Your task to perform on an android device: toggle pop-ups in chrome Image 0: 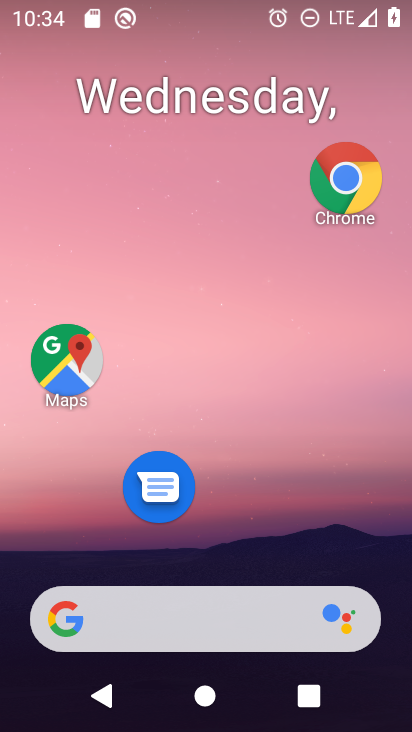
Step 0: drag from (183, 586) to (180, 237)
Your task to perform on an android device: toggle pop-ups in chrome Image 1: 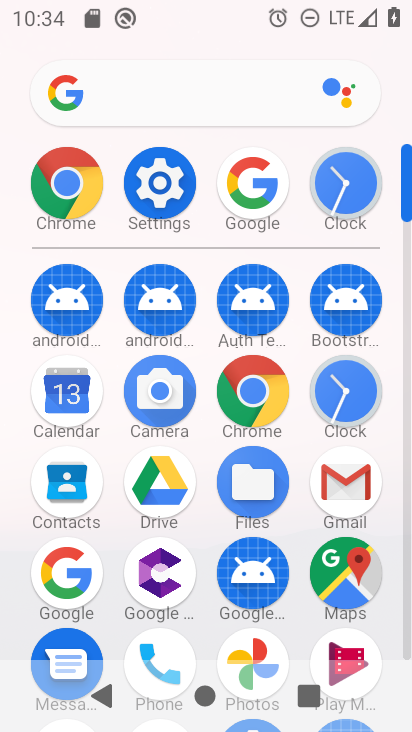
Step 1: click (263, 405)
Your task to perform on an android device: toggle pop-ups in chrome Image 2: 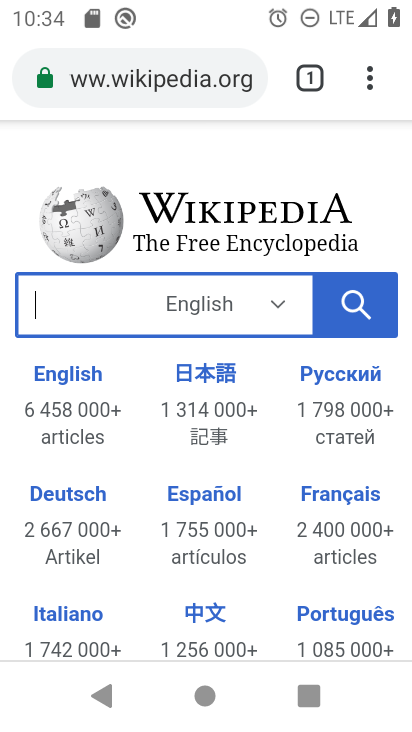
Step 2: click (373, 88)
Your task to perform on an android device: toggle pop-ups in chrome Image 3: 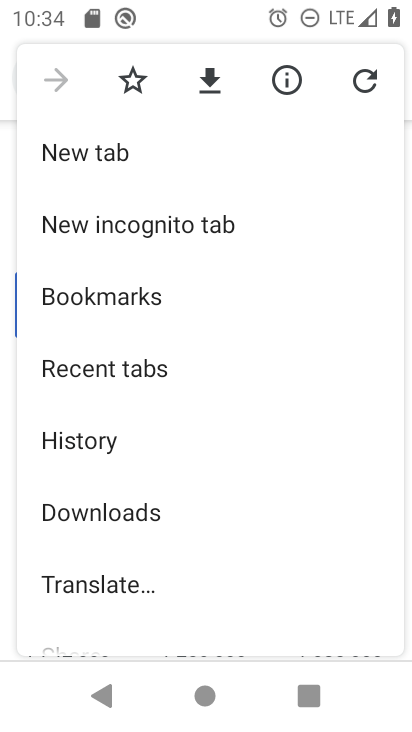
Step 3: drag from (168, 513) to (191, 281)
Your task to perform on an android device: toggle pop-ups in chrome Image 4: 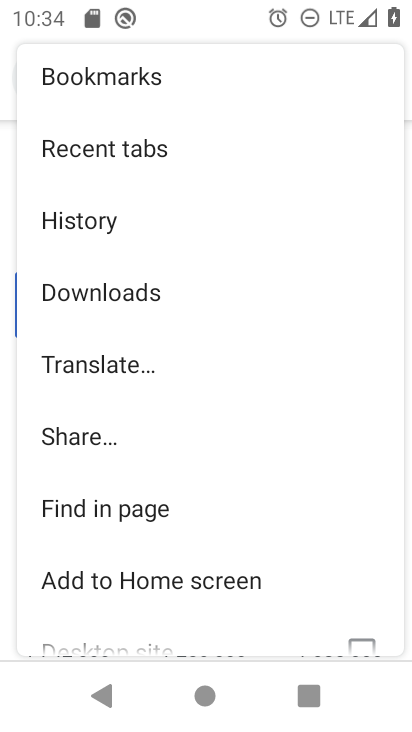
Step 4: drag from (112, 530) to (173, 162)
Your task to perform on an android device: toggle pop-ups in chrome Image 5: 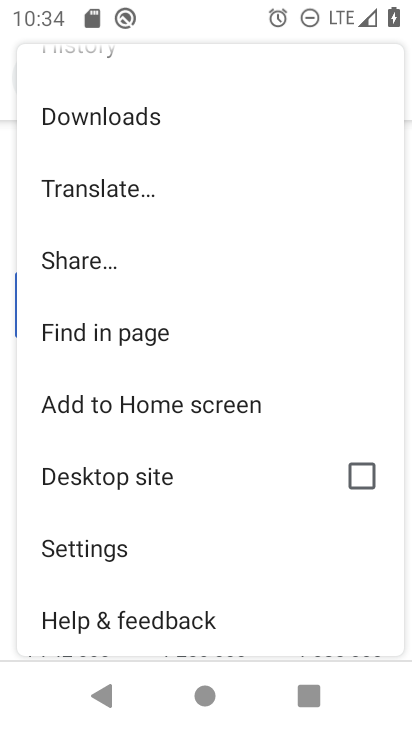
Step 5: click (76, 553)
Your task to perform on an android device: toggle pop-ups in chrome Image 6: 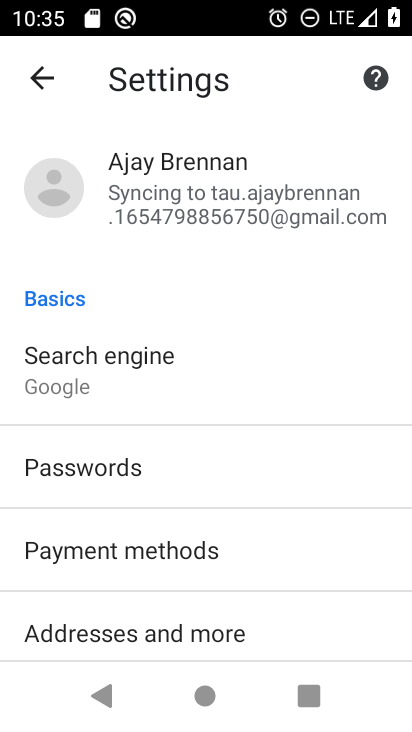
Step 6: drag from (115, 577) to (150, 98)
Your task to perform on an android device: toggle pop-ups in chrome Image 7: 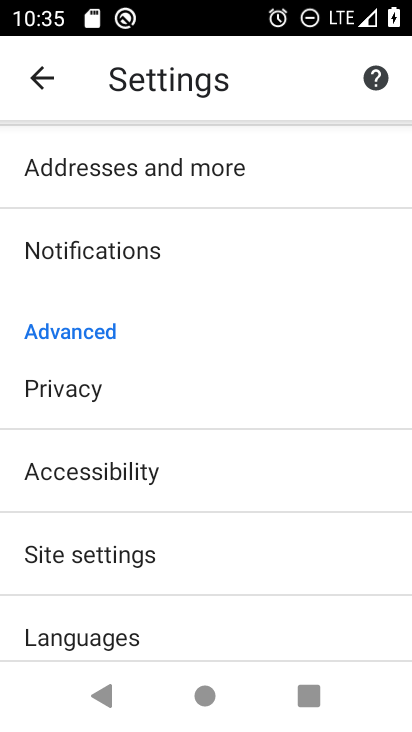
Step 7: click (126, 563)
Your task to perform on an android device: toggle pop-ups in chrome Image 8: 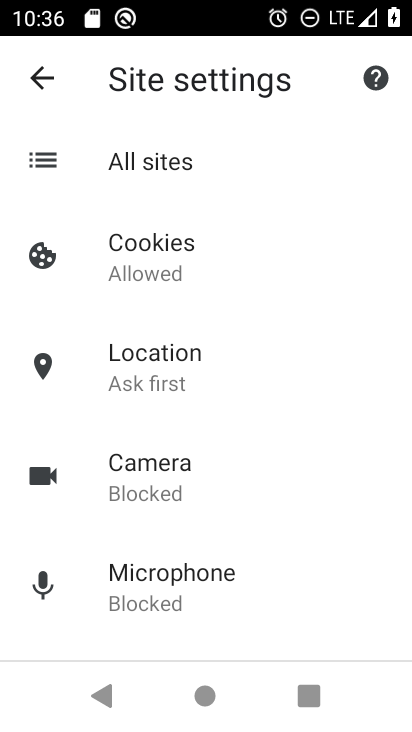
Step 8: drag from (219, 571) to (216, 358)
Your task to perform on an android device: toggle pop-ups in chrome Image 9: 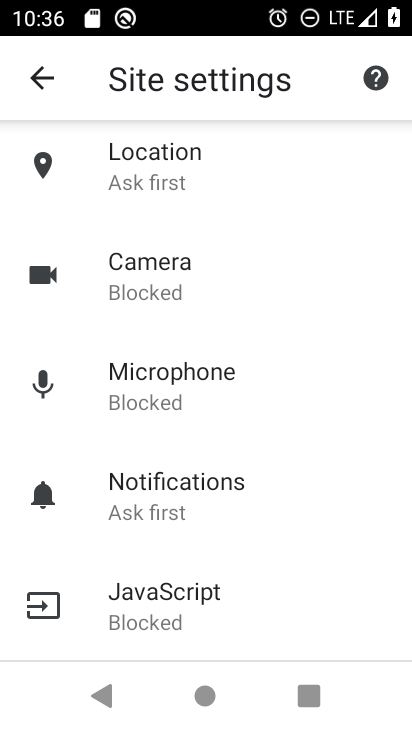
Step 9: drag from (164, 480) to (196, 163)
Your task to perform on an android device: toggle pop-ups in chrome Image 10: 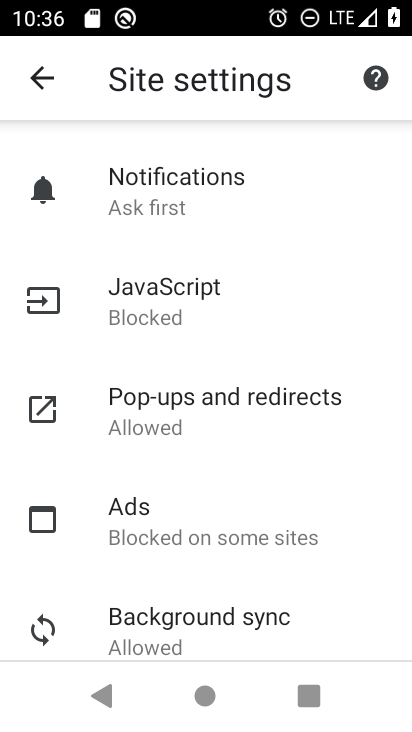
Step 10: click (225, 414)
Your task to perform on an android device: toggle pop-ups in chrome Image 11: 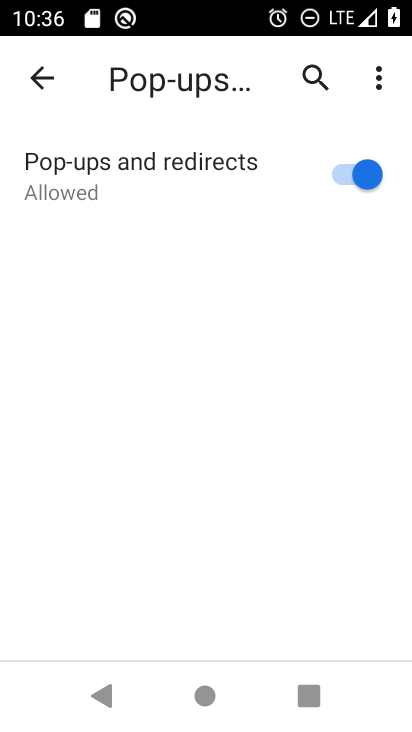
Step 11: click (334, 179)
Your task to perform on an android device: toggle pop-ups in chrome Image 12: 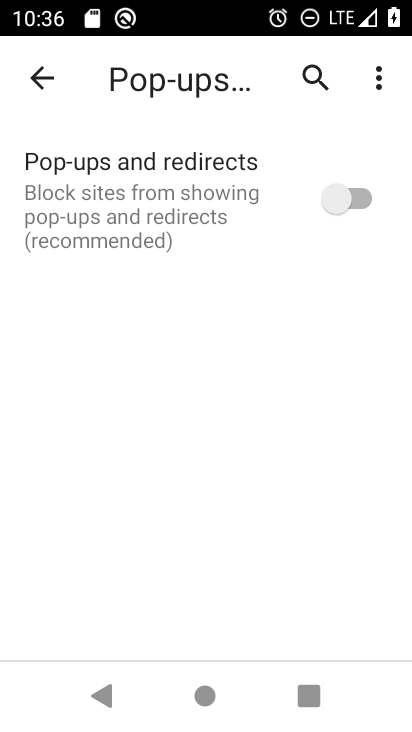
Step 12: task complete